Your task to perform on an android device: turn off notifications in google photos Image 0: 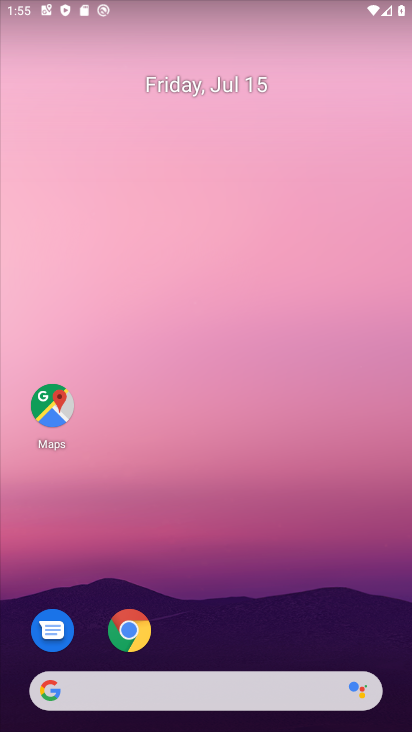
Step 0: drag from (281, 570) to (204, 127)
Your task to perform on an android device: turn off notifications in google photos Image 1: 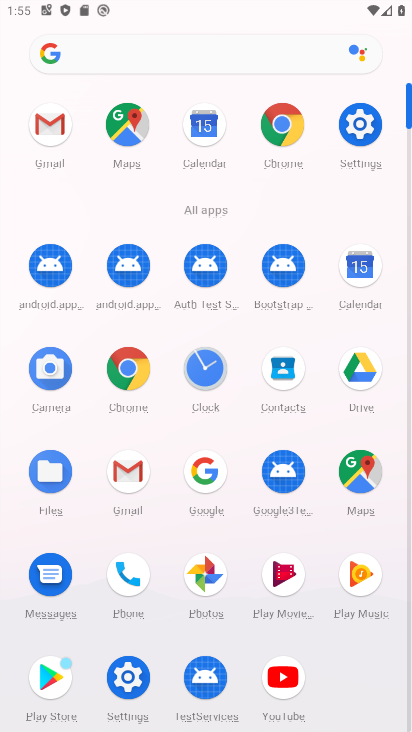
Step 1: click (203, 573)
Your task to perform on an android device: turn off notifications in google photos Image 2: 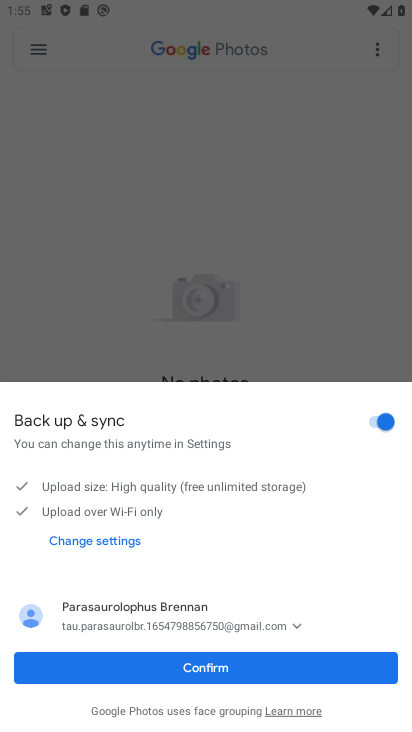
Step 2: click (201, 664)
Your task to perform on an android device: turn off notifications in google photos Image 3: 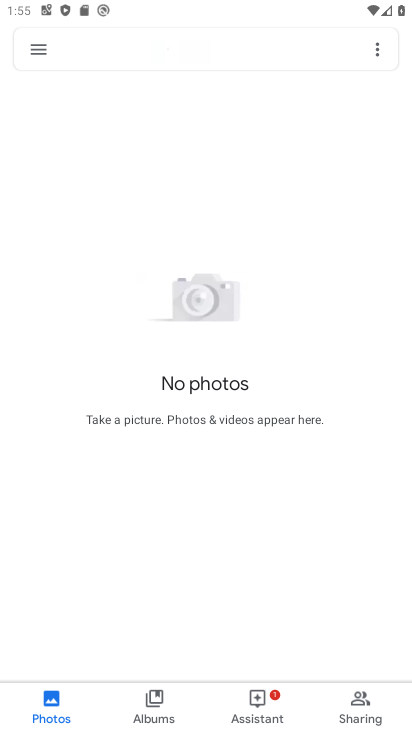
Step 3: click (37, 48)
Your task to perform on an android device: turn off notifications in google photos Image 4: 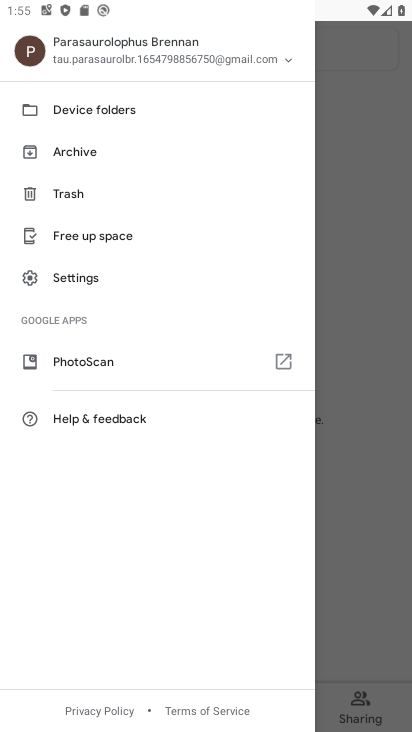
Step 4: click (65, 273)
Your task to perform on an android device: turn off notifications in google photos Image 5: 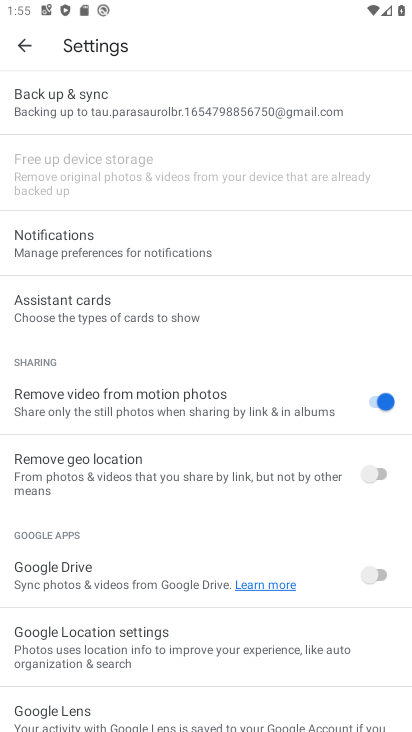
Step 5: click (92, 239)
Your task to perform on an android device: turn off notifications in google photos Image 6: 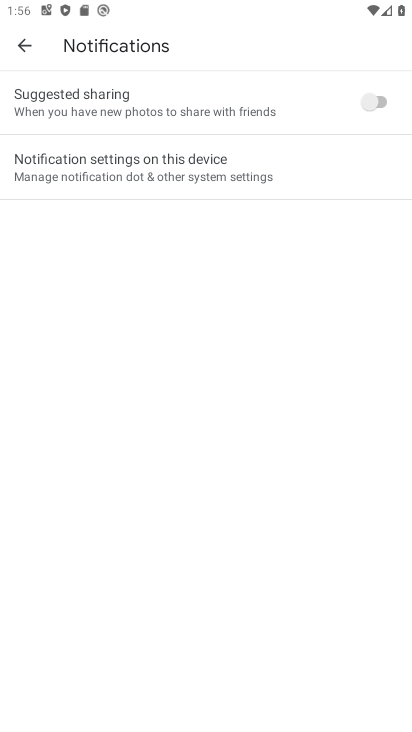
Step 6: task complete